Your task to perform on an android device: open app "Chime – Mobile Banking" Image 0: 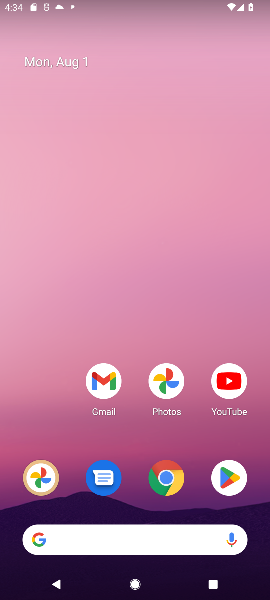
Step 0: press home button
Your task to perform on an android device: open app "Chime – Mobile Banking" Image 1: 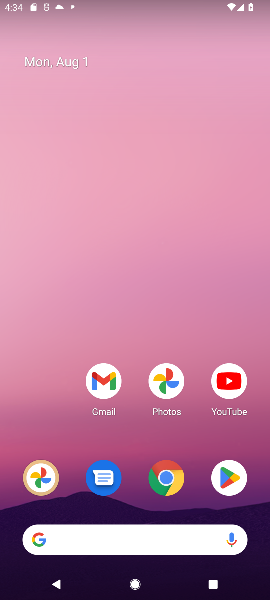
Step 1: click (241, 472)
Your task to perform on an android device: open app "Chime – Mobile Banking" Image 2: 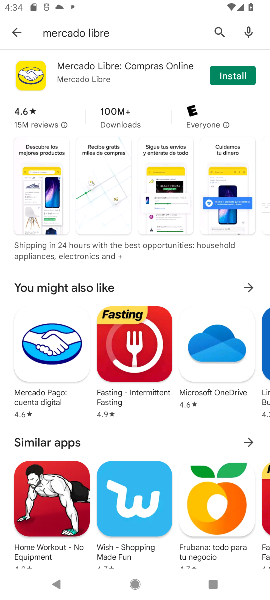
Step 2: click (215, 27)
Your task to perform on an android device: open app "Chime – Mobile Banking" Image 3: 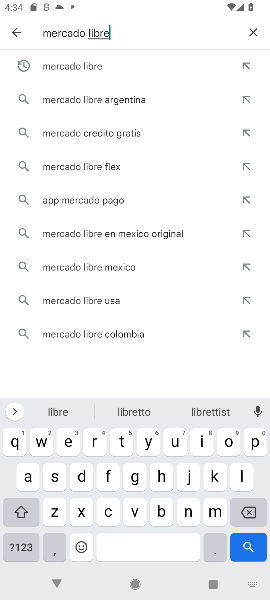
Step 3: click (256, 26)
Your task to perform on an android device: open app "Chime – Mobile Banking" Image 4: 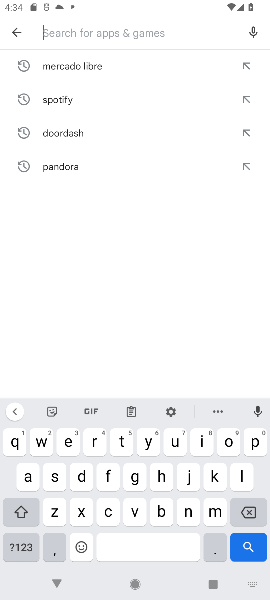
Step 4: click (107, 519)
Your task to perform on an android device: open app "Chime – Mobile Banking" Image 5: 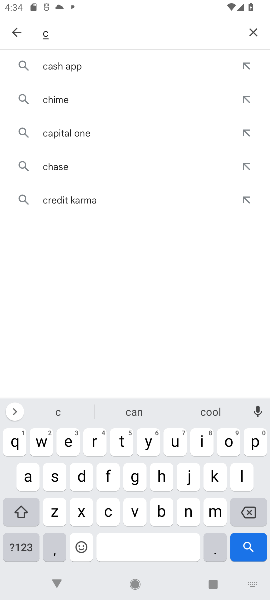
Step 5: click (163, 478)
Your task to perform on an android device: open app "Chime – Mobile Banking" Image 6: 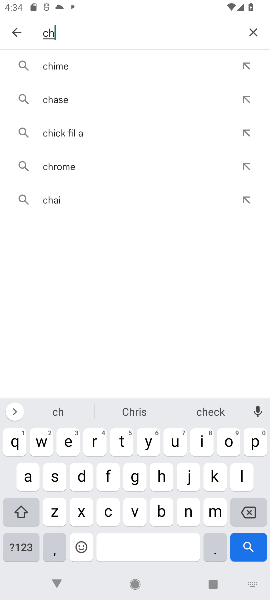
Step 6: click (77, 67)
Your task to perform on an android device: open app "Chime – Mobile Banking" Image 7: 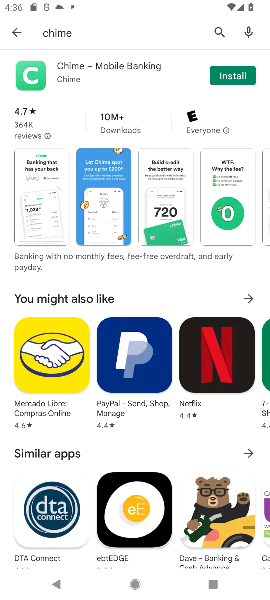
Step 7: task complete